Your task to perform on an android device: Go to Reddit.com Image 0: 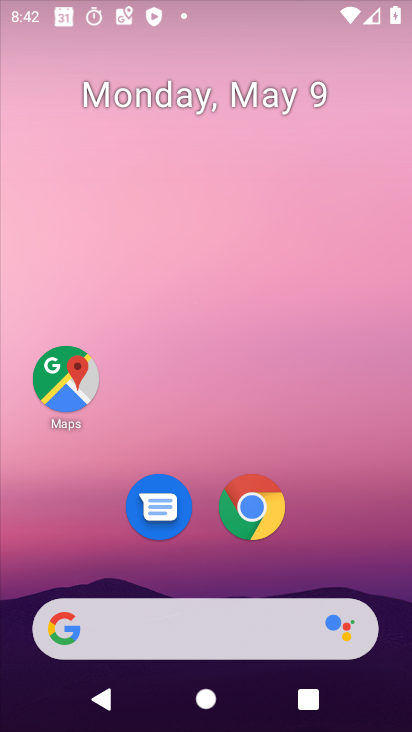
Step 0: drag from (316, 528) to (254, 294)
Your task to perform on an android device: Go to Reddit.com Image 1: 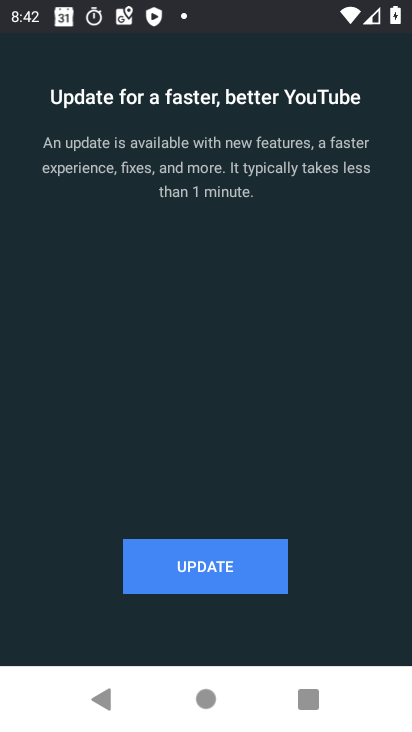
Step 1: press home button
Your task to perform on an android device: Go to Reddit.com Image 2: 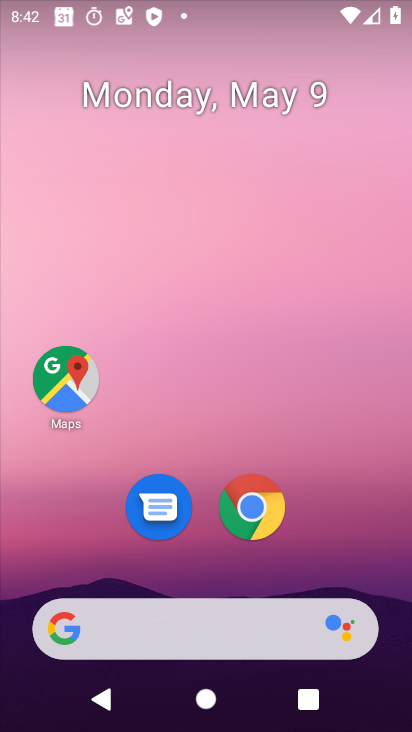
Step 2: drag from (305, 659) to (278, 171)
Your task to perform on an android device: Go to Reddit.com Image 3: 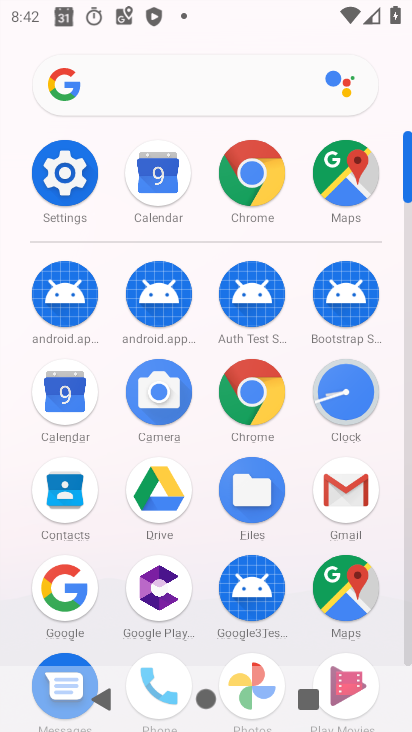
Step 3: click (247, 175)
Your task to perform on an android device: Go to Reddit.com Image 4: 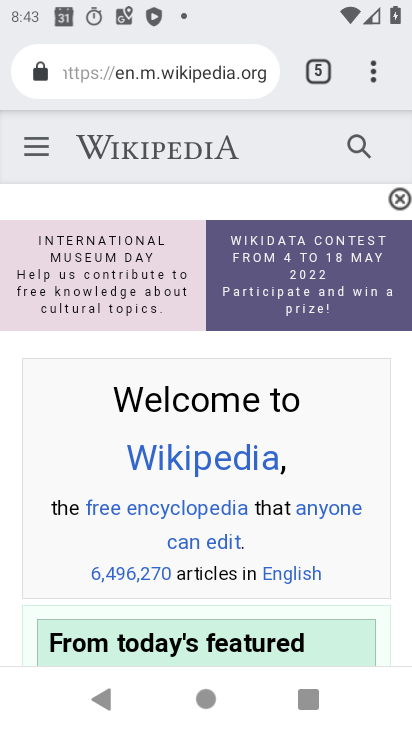
Step 4: click (312, 75)
Your task to perform on an android device: Go to Reddit.com Image 5: 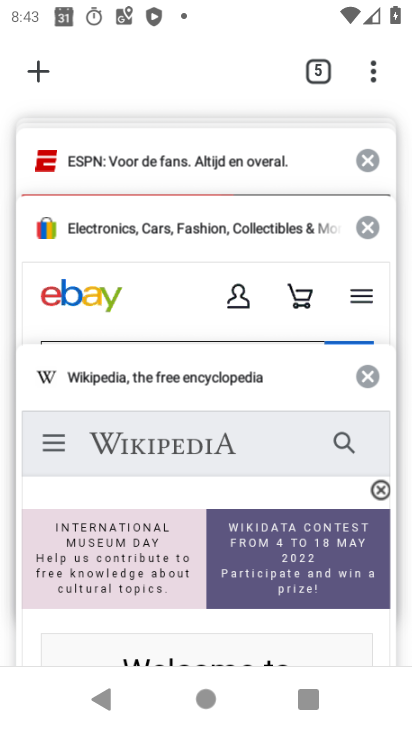
Step 5: click (46, 84)
Your task to perform on an android device: Go to Reddit.com Image 6: 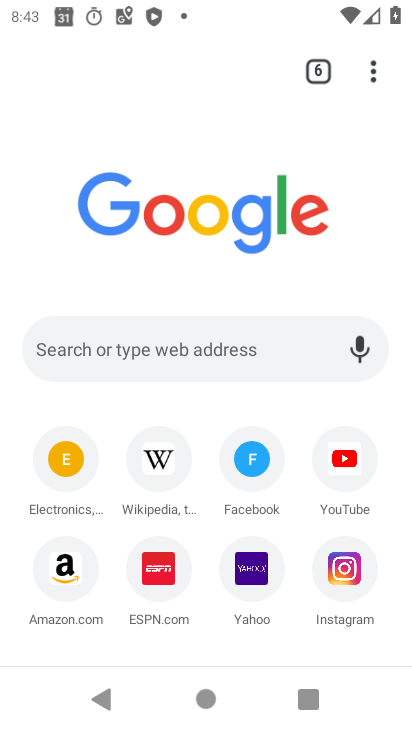
Step 6: click (181, 352)
Your task to perform on an android device: Go to Reddit.com Image 7: 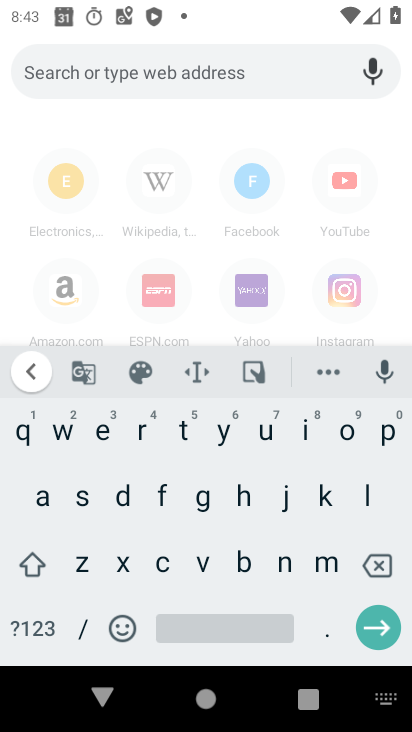
Step 7: click (138, 434)
Your task to perform on an android device: Go to Reddit.com Image 8: 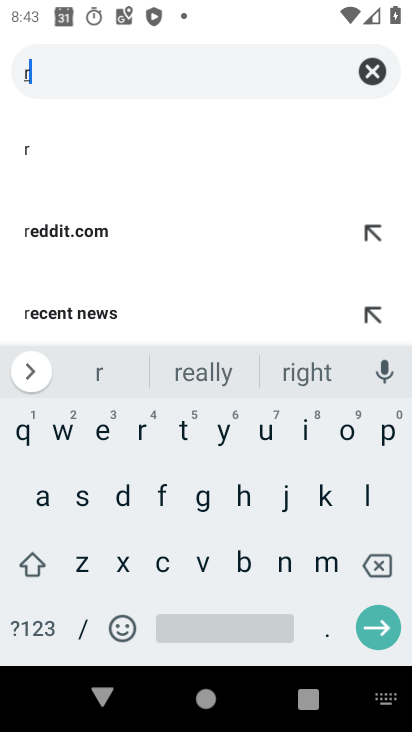
Step 8: click (104, 442)
Your task to perform on an android device: Go to Reddit.com Image 9: 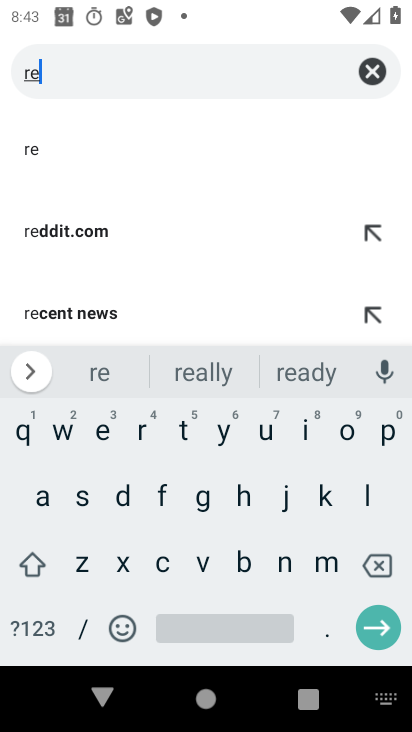
Step 9: click (97, 237)
Your task to perform on an android device: Go to Reddit.com Image 10: 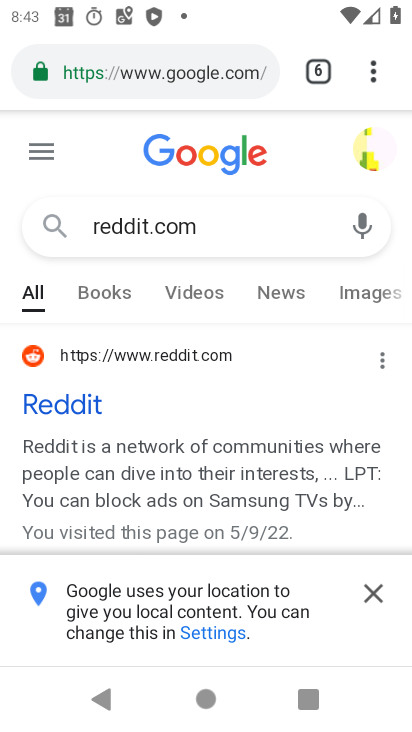
Step 10: click (79, 404)
Your task to perform on an android device: Go to Reddit.com Image 11: 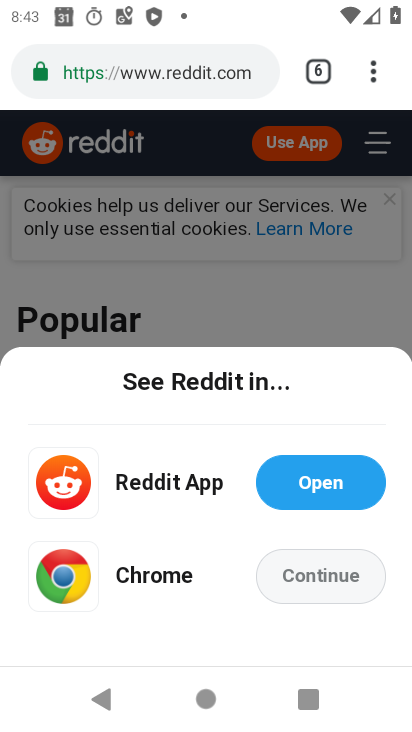
Step 11: click (325, 569)
Your task to perform on an android device: Go to Reddit.com Image 12: 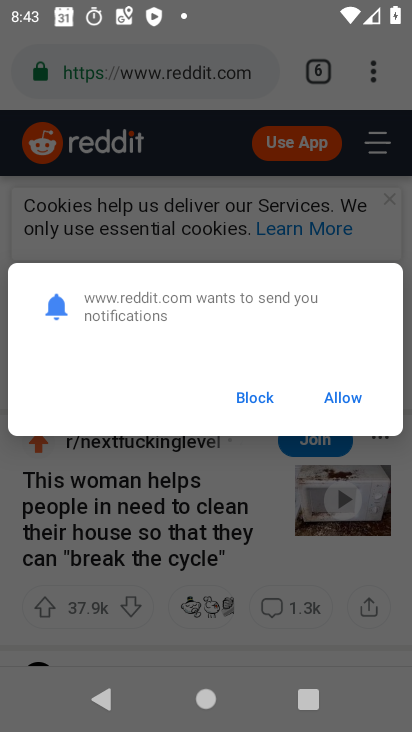
Step 12: click (260, 407)
Your task to perform on an android device: Go to Reddit.com Image 13: 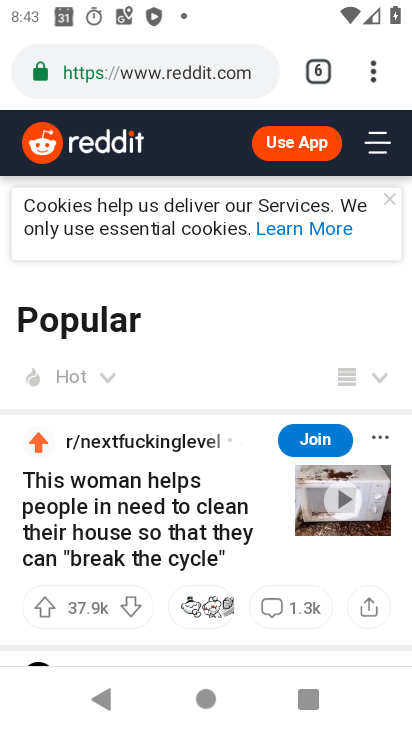
Step 13: task complete